Your task to perform on an android device: set an alarm Image 0: 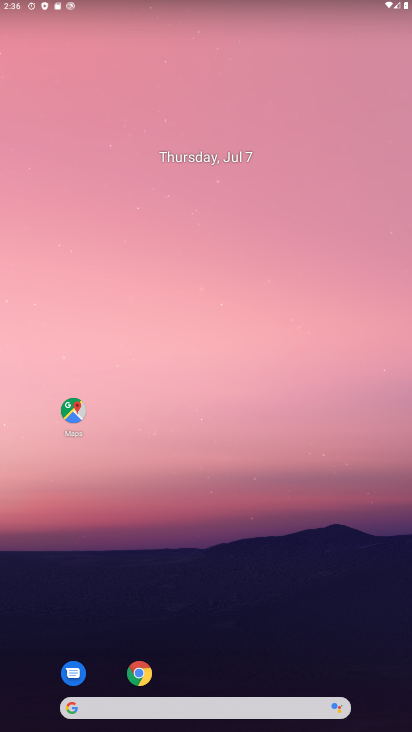
Step 0: drag from (229, 687) to (204, 103)
Your task to perform on an android device: set an alarm Image 1: 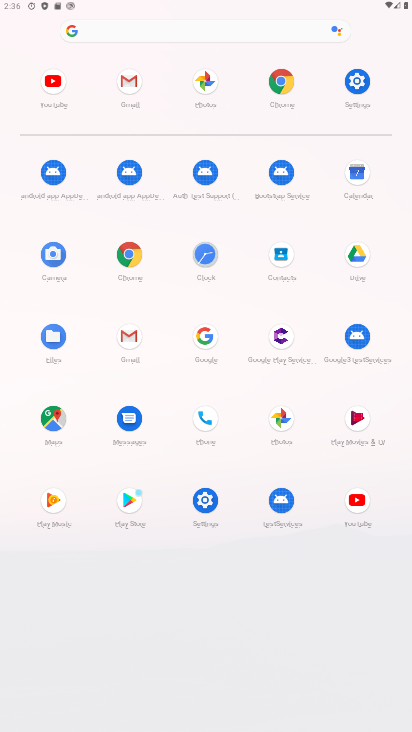
Step 1: click (212, 244)
Your task to perform on an android device: set an alarm Image 2: 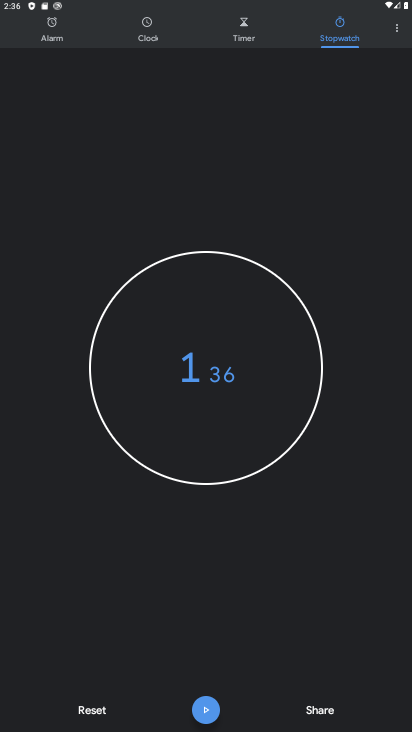
Step 2: click (58, 41)
Your task to perform on an android device: set an alarm Image 3: 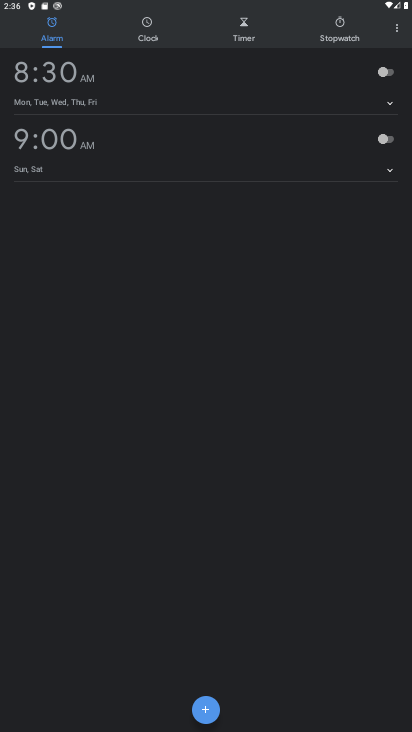
Step 3: click (201, 709)
Your task to perform on an android device: set an alarm Image 4: 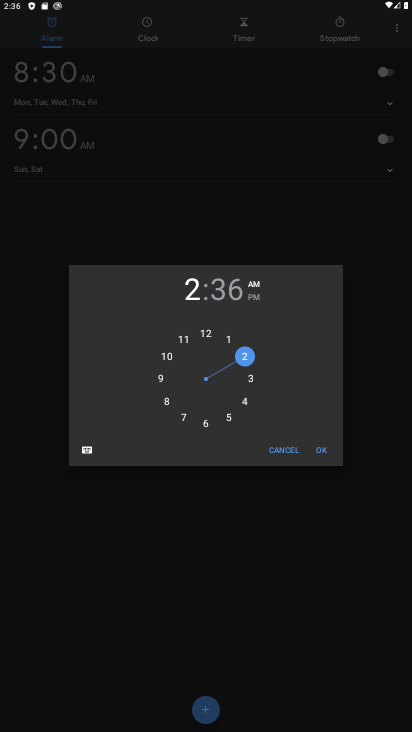
Step 4: click (317, 459)
Your task to perform on an android device: set an alarm Image 5: 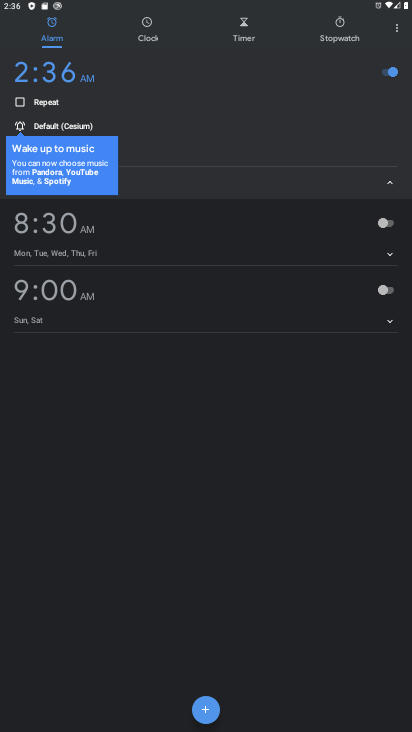
Step 5: task complete